Your task to perform on an android device: open chrome privacy settings Image 0: 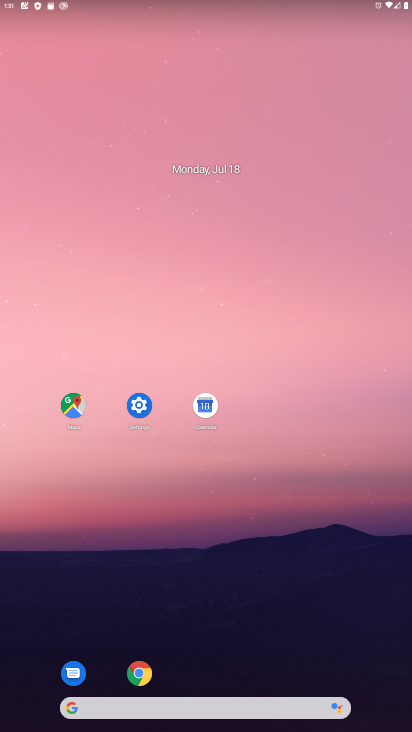
Step 0: click (139, 674)
Your task to perform on an android device: open chrome privacy settings Image 1: 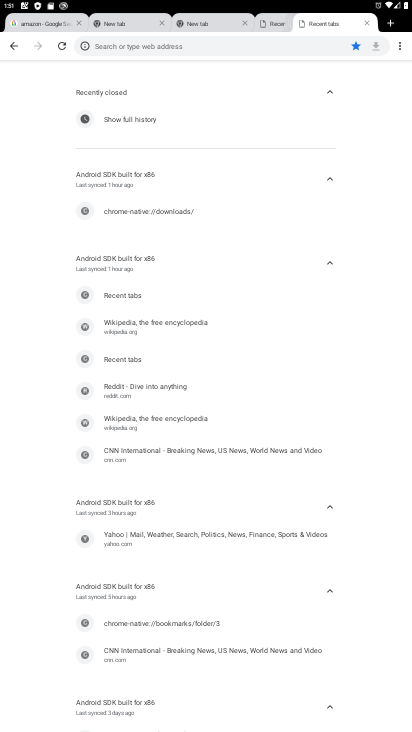
Step 1: click (399, 44)
Your task to perform on an android device: open chrome privacy settings Image 2: 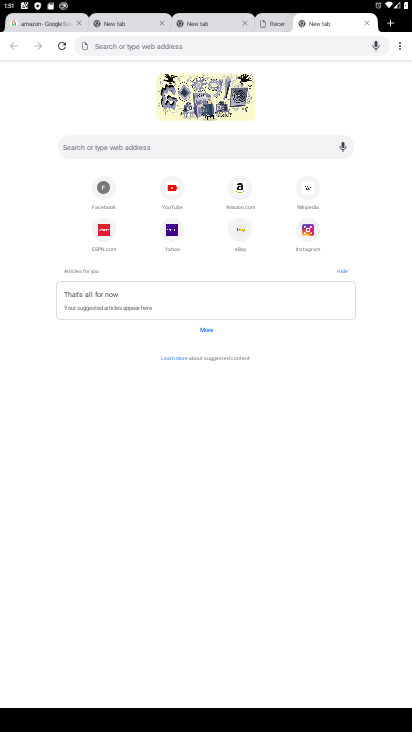
Step 2: click (399, 44)
Your task to perform on an android device: open chrome privacy settings Image 3: 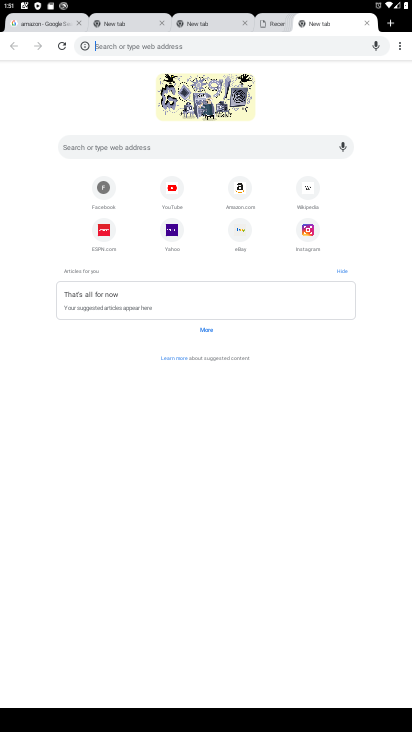
Step 3: click (399, 44)
Your task to perform on an android device: open chrome privacy settings Image 4: 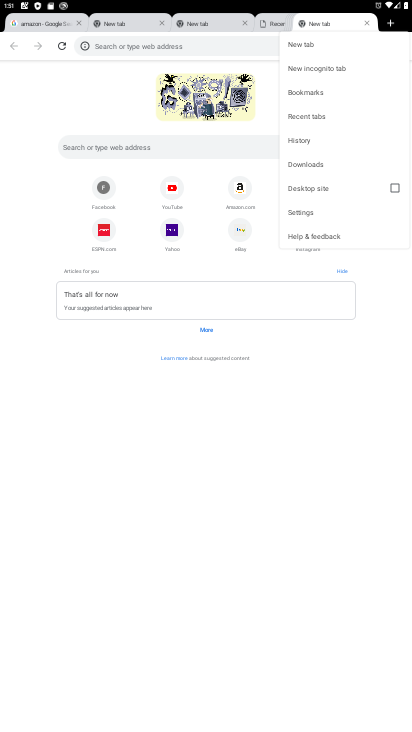
Step 4: click (291, 211)
Your task to perform on an android device: open chrome privacy settings Image 5: 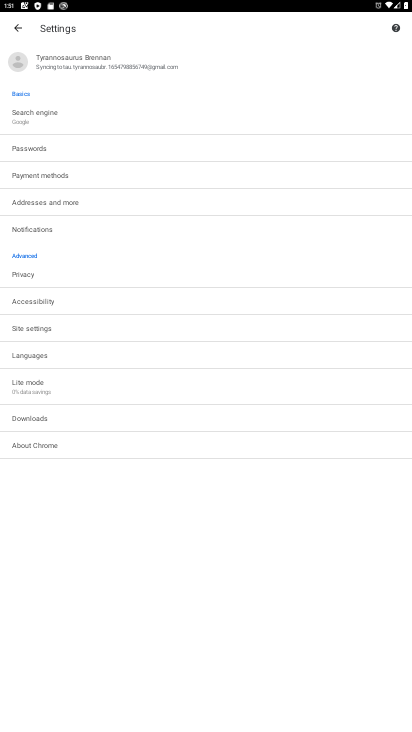
Step 5: click (23, 271)
Your task to perform on an android device: open chrome privacy settings Image 6: 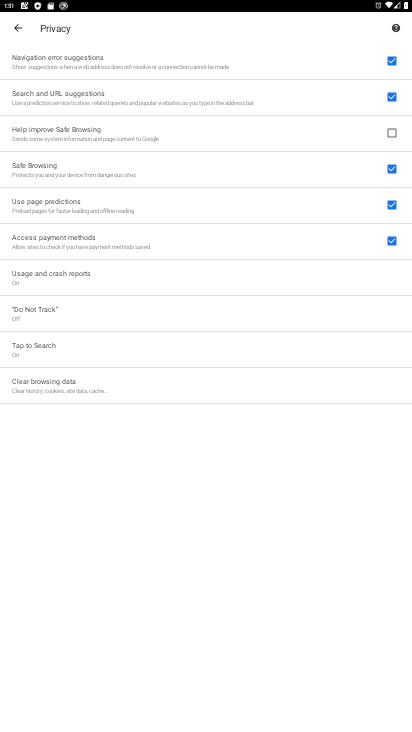
Step 6: task complete